Your task to perform on an android device: move an email to a new category in the gmail app Image 0: 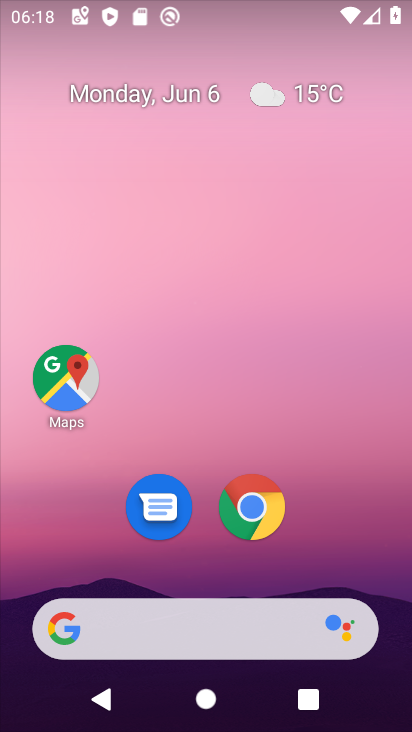
Step 0: drag from (255, 561) to (296, 189)
Your task to perform on an android device: move an email to a new category in the gmail app Image 1: 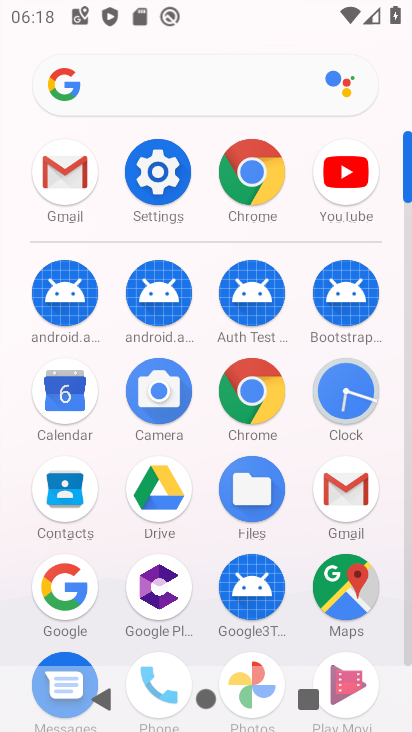
Step 1: click (63, 174)
Your task to perform on an android device: move an email to a new category in the gmail app Image 2: 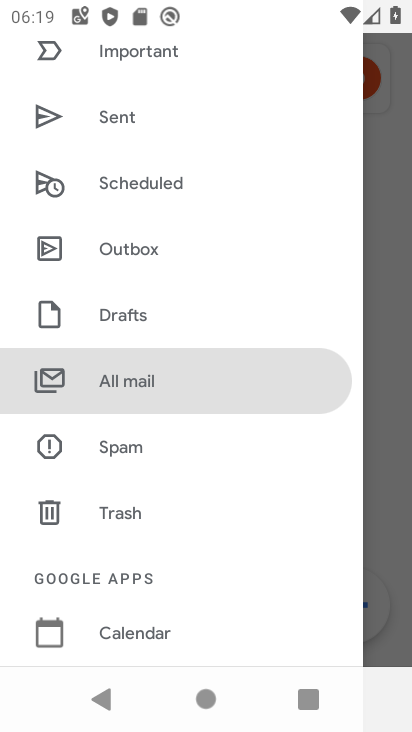
Step 2: click (146, 377)
Your task to perform on an android device: move an email to a new category in the gmail app Image 3: 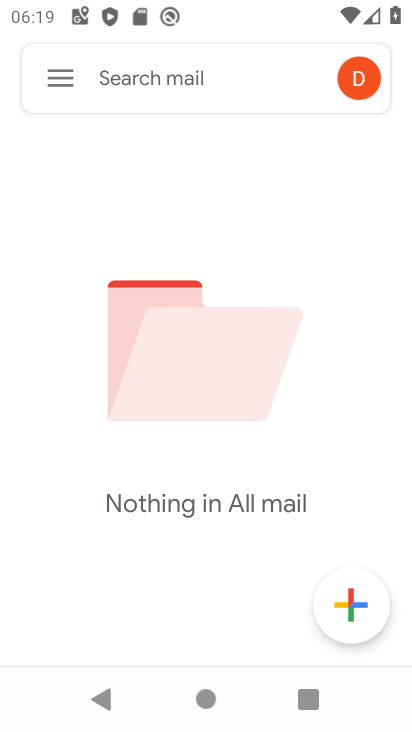
Step 3: task complete